Your task to perform on an android device: turn on wifi Image 0: 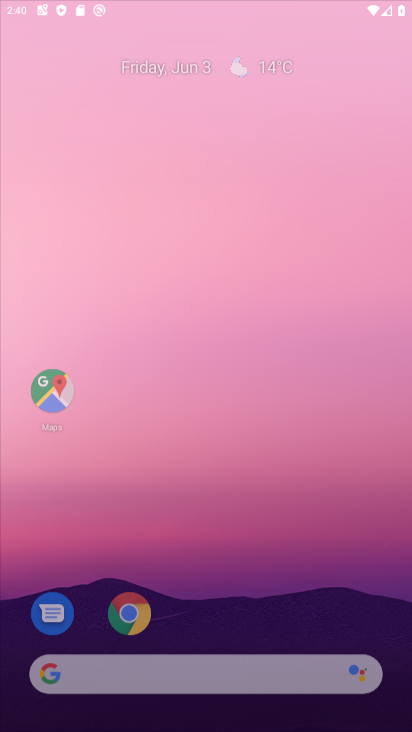
Step 0: drag from (266, 448) to (238, 270)
Your task to perform on an android device: turn on wifi Image 1: 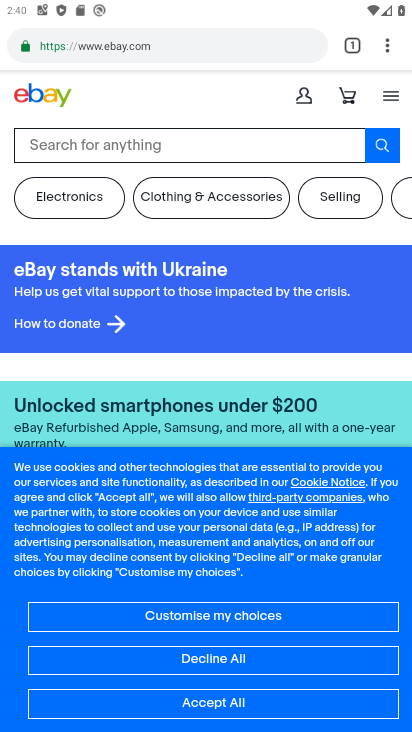
Step 1: press home button
Your task to perform on an android device: turn on wifi Image 2: 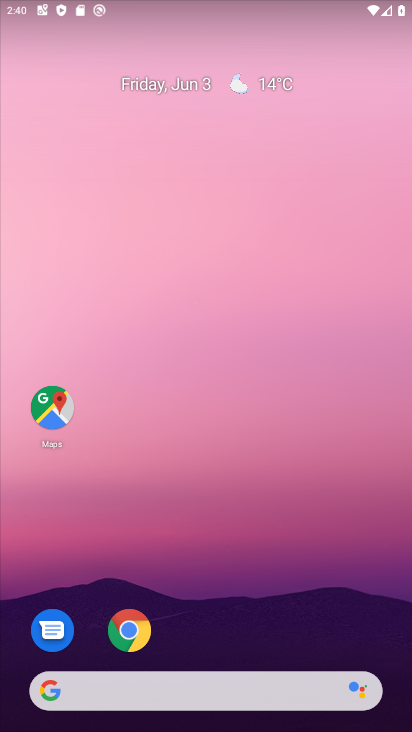
Step 2: drag from (257, 616) to (175, 197)
Your task to perform on an android device: turn on wifi Image 3: 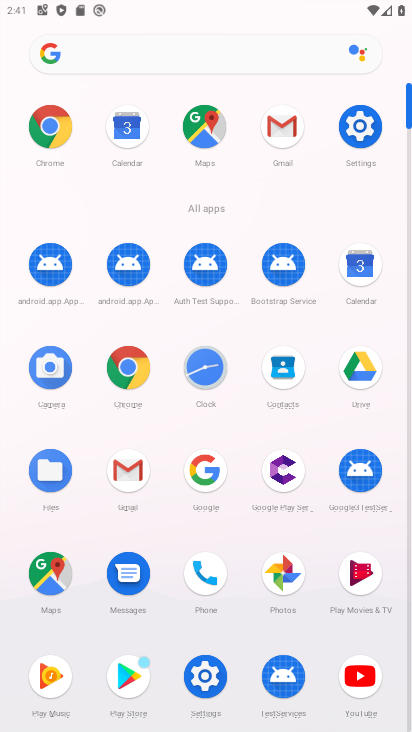
Step 3: click (375, 131)
Your task to perform on an android device: turn on wifi Image 4: 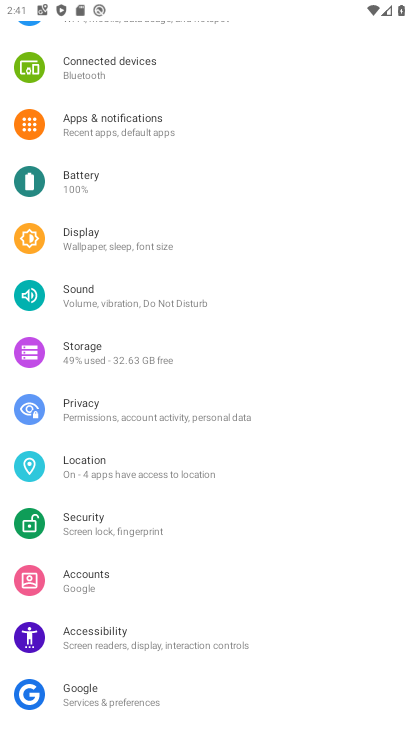
Step 4: drag from (205, 110) to (211, 505)
Your task to perform on an android device: turn on wifi Image 5: 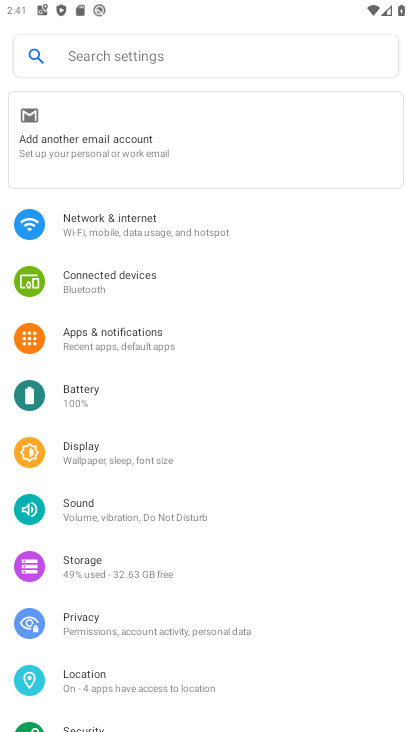
Step 5: click (302, 223)
Your task to perform on an android device: turn on wifi Image 6: 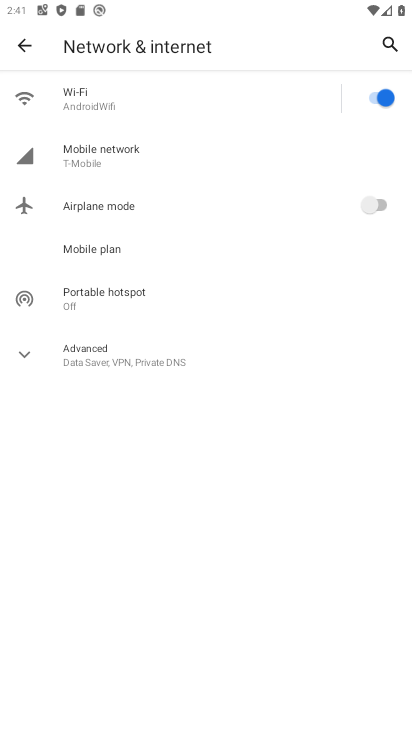
Step 6: task complete